Your task to perform on an android device: open app "Speedtest by Ookla" (install if not already installed) Image 0: 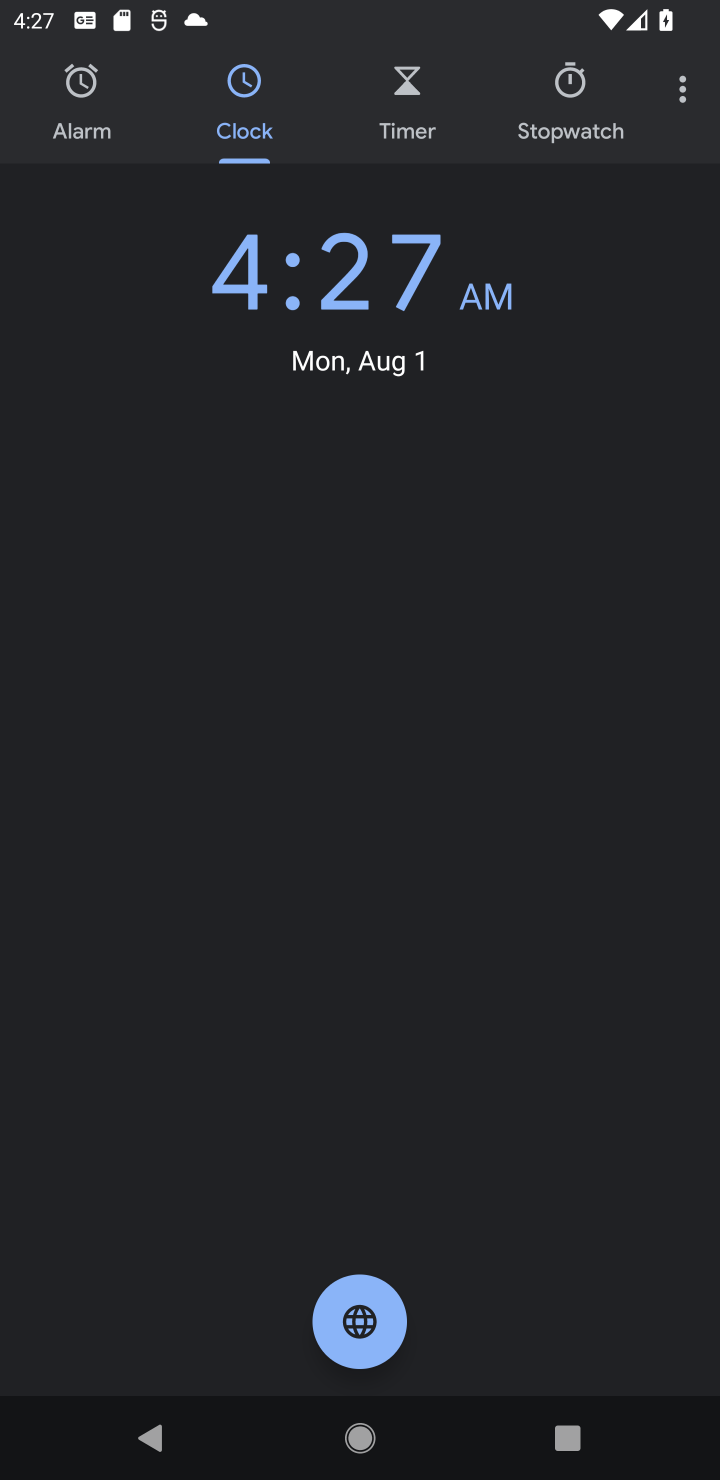
Step 0: press home button
Your task to perform on an android device: open app "Speedtest by Ookla" (install if not already installed) Image 1: 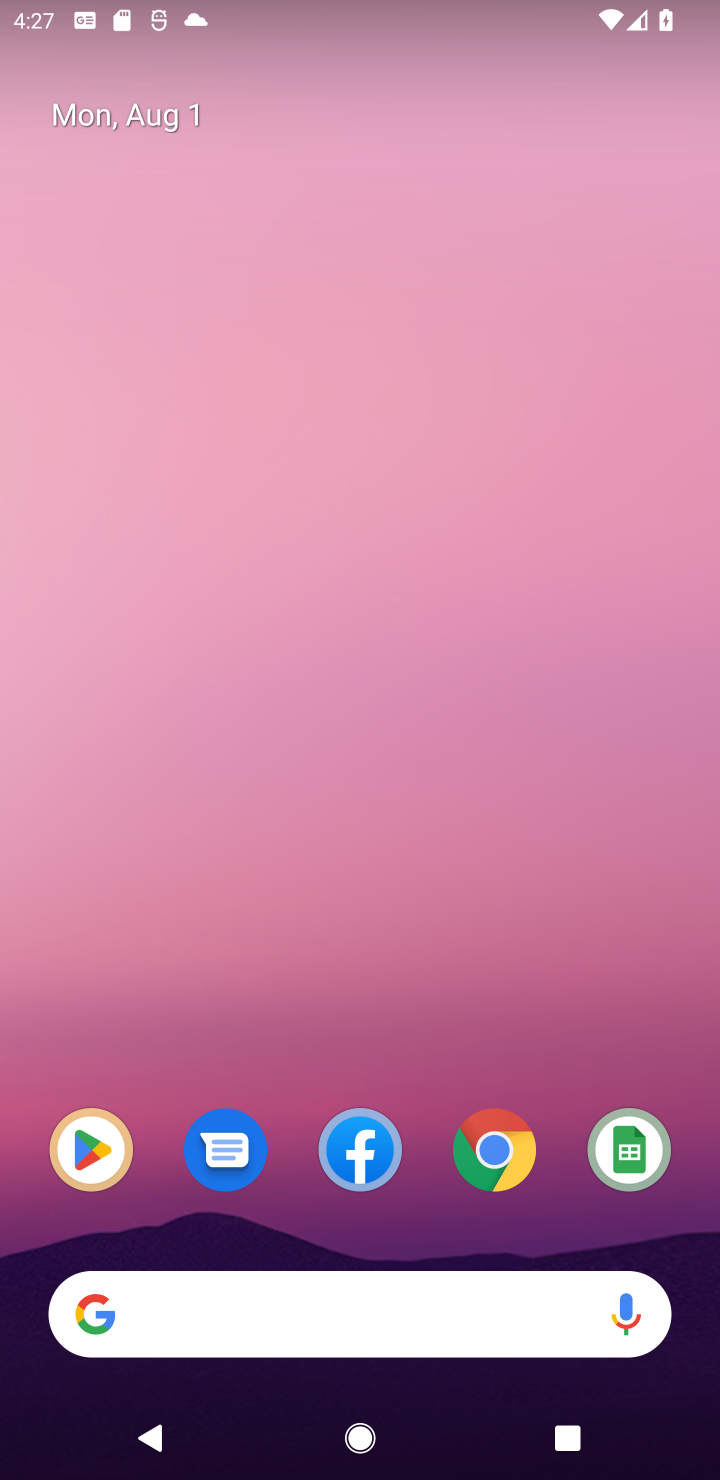
Step 1: click (81, 1131)
Your task to perform on an android device: open app "Speedtest by Ookla" (install if not already installed) Image 2: 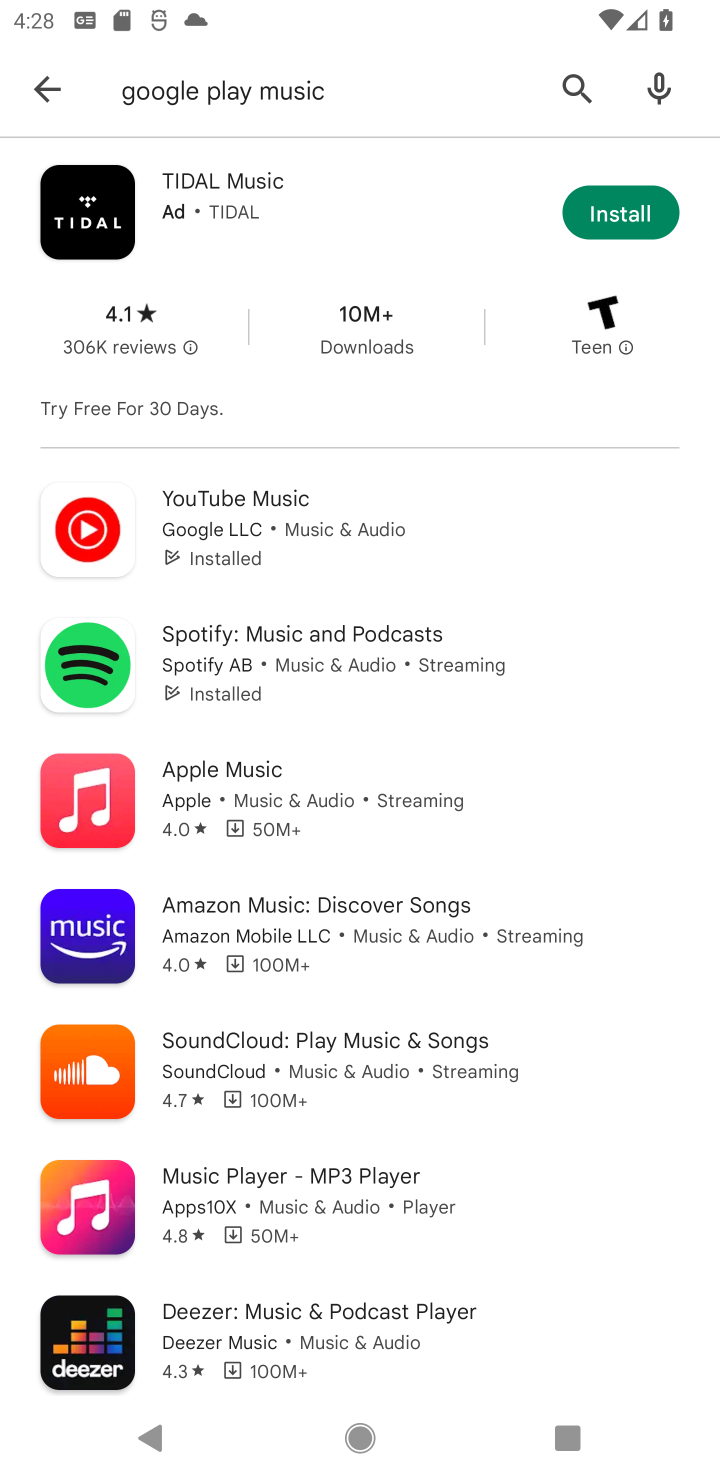
Step 2: task complete